Your task to perform on an android device: Open my contact list Image 0: 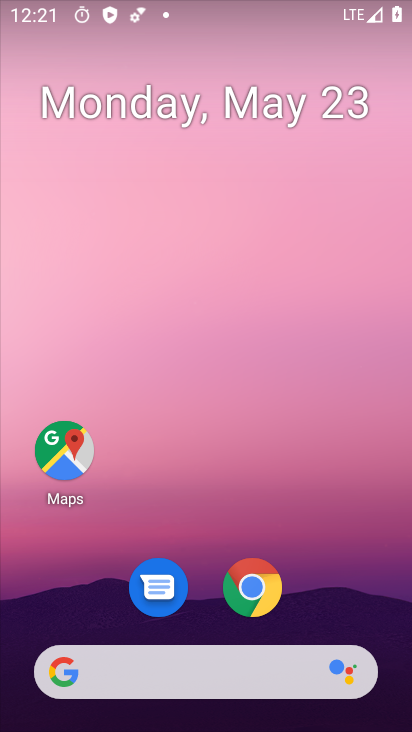
Step 0: drag from (171, 610) to (170, 35)
Your task to perform on an android device: Open my contact list Image 1: 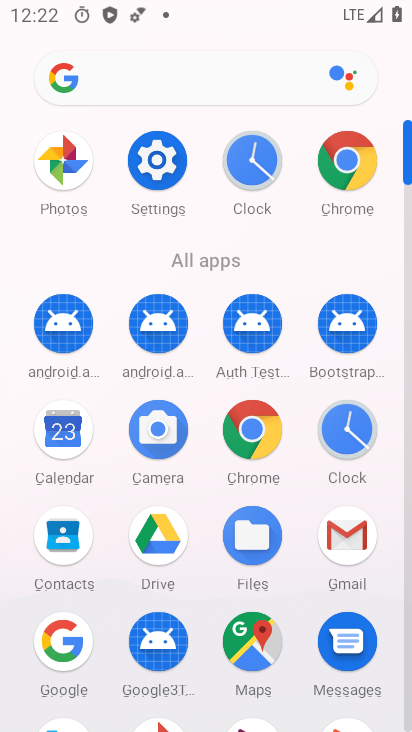
Step 1: click (57, 541)
Your task to perform on an android device: Open my contact list Image 2: 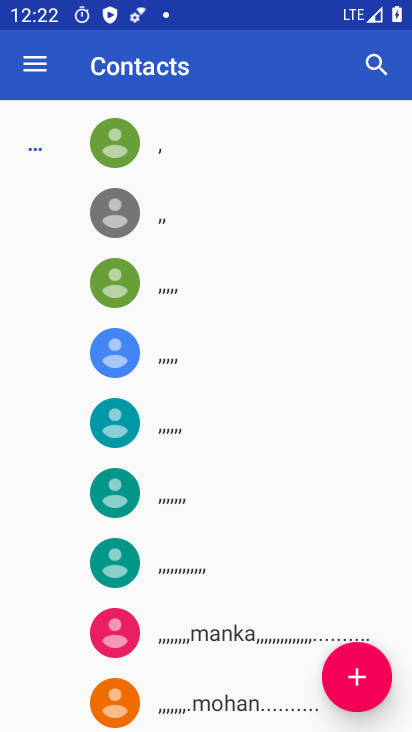
Step 2: task complete